Your task to perform on an android device: open the mobile data screen to see how much data has been used Image 0: 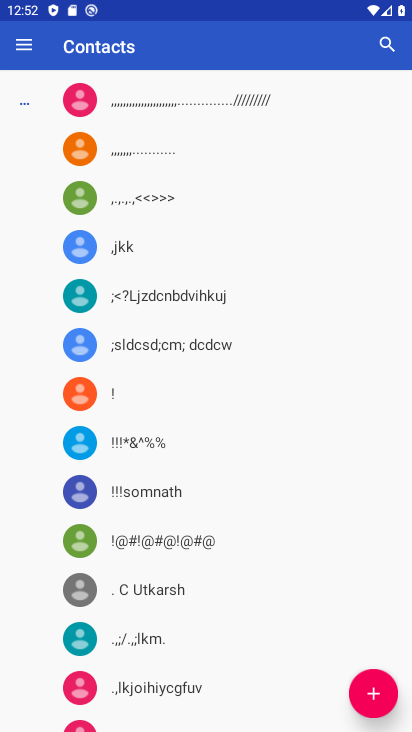
Step 0: press home button
Your task to perform on an android device: open the mobile data screen to see how much data has been used Image 1: 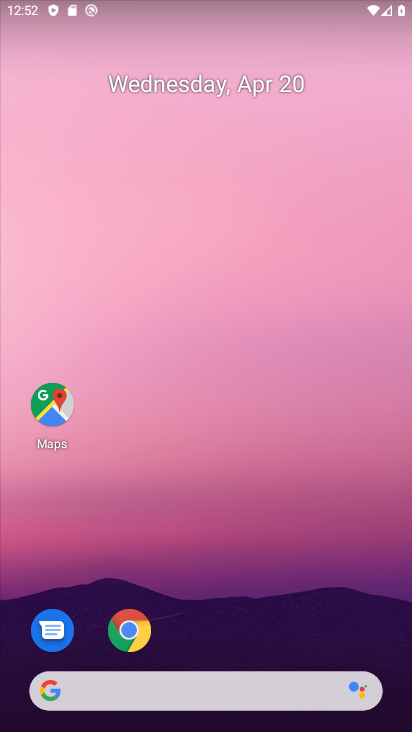
Step 1: drag from (342, 493) to (325, 108)
Your task to perform on an android device: open the mobile data screen to see how much data has been used Image 2: 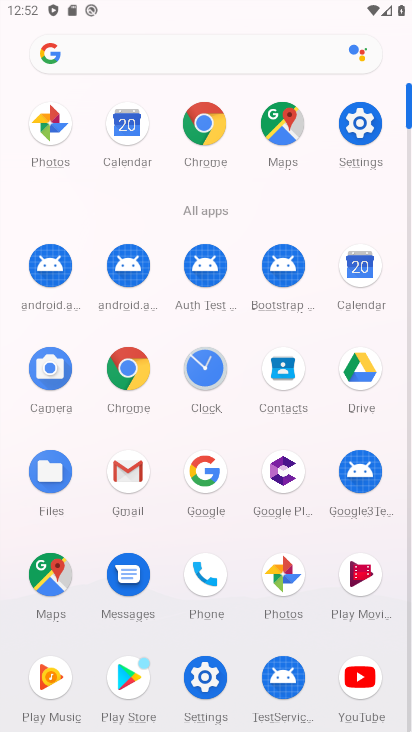
Step 2: click (371, 127)
Your task to perform on an android device: open the mobile data screen to see how much data has been used Image 3: 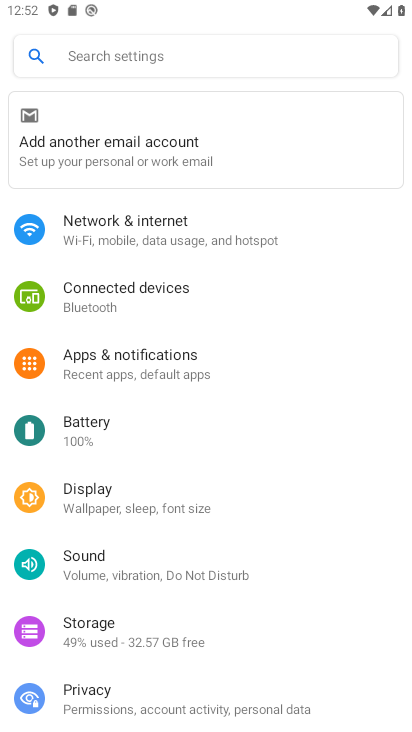
Step 3: click (155, 235)
Your task to perform on an android device: open the mobile data screen to see how much data has been used Image 4: 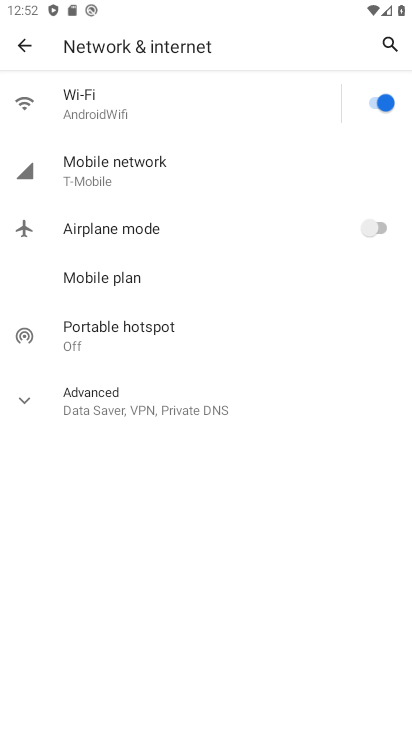
Step 4: click (166, 163)
Your task to perform on an android device: open the mobile data screen to see how much data has been used Image 5: 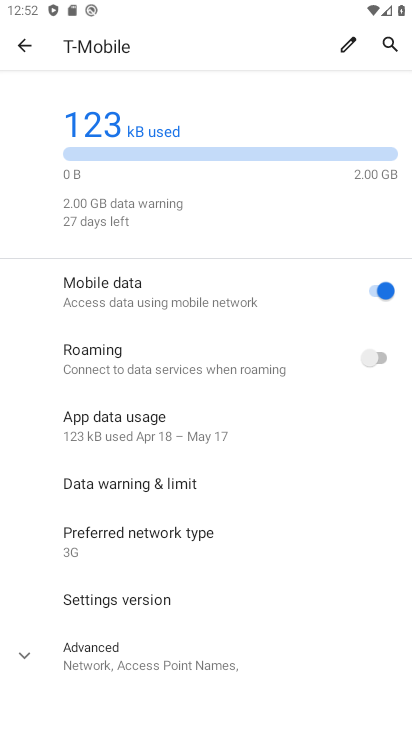
Step 5: click (123, 430)
Your task to perform on an android device: open the mobile data screen to see how much data has been used Image 6: 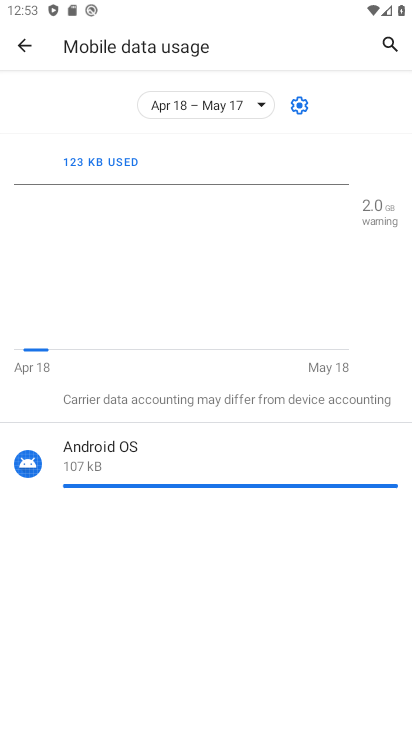
Step 6: task complete